Your task to perform on an android device: turn on the 24-hour format for clock Image 0: 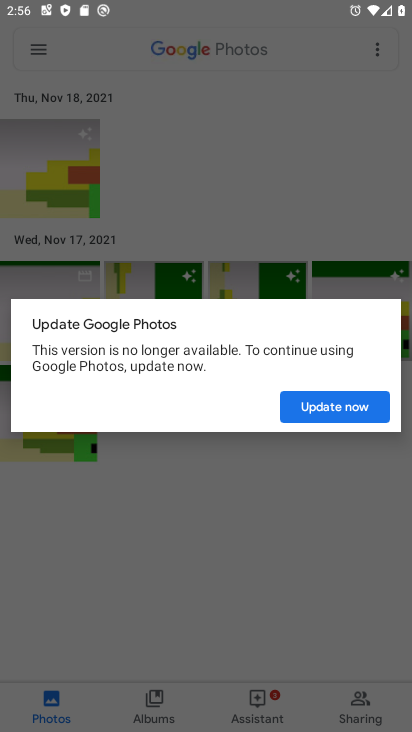
Step 0: press back button
Your task to perform on an android device: turn on the 24-hour format for clock Image 1: 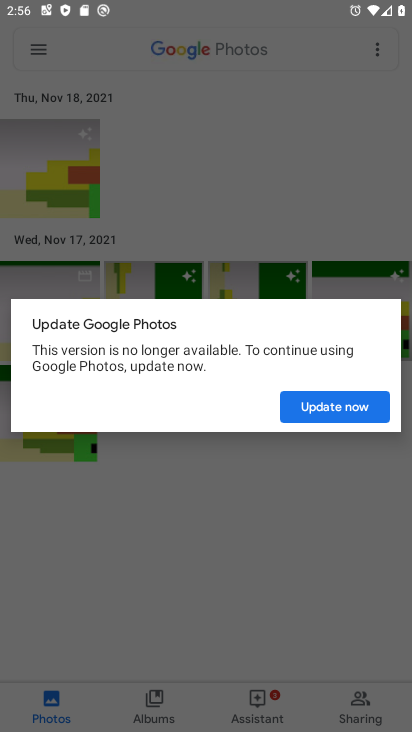
Step 1: press home button
Your task to perform on an android device: turn on the 24-hour format for clock Image 2: 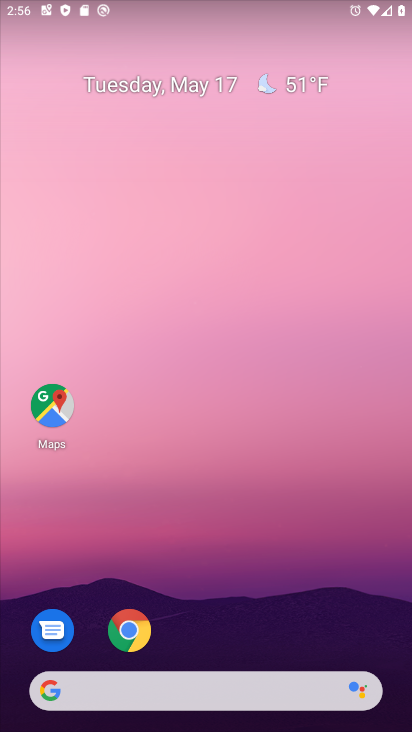
Step 2: drag from (244, 556) to (358, 71)
Your task to perform on an android device: turn on the 24-hour format for clock Image 3: 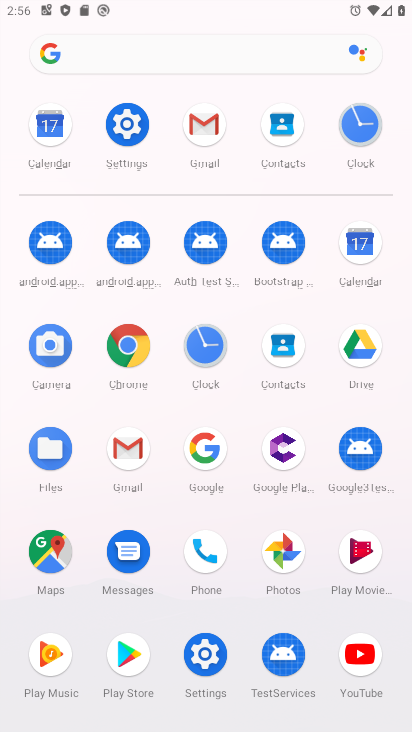
Step 3: click (361, 121)
Your task to perform on an android device: turn on the 24-hour format for clock Image 4: 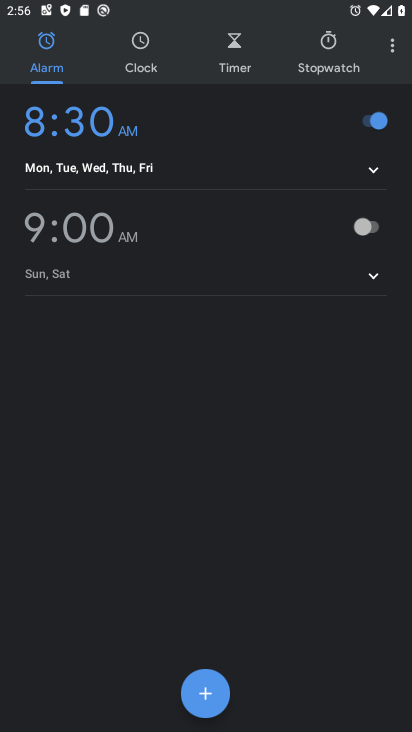
Step 4: click (138, 56)
Your task to perform on an android device: turn on the 24-hour format for clock Image 5: 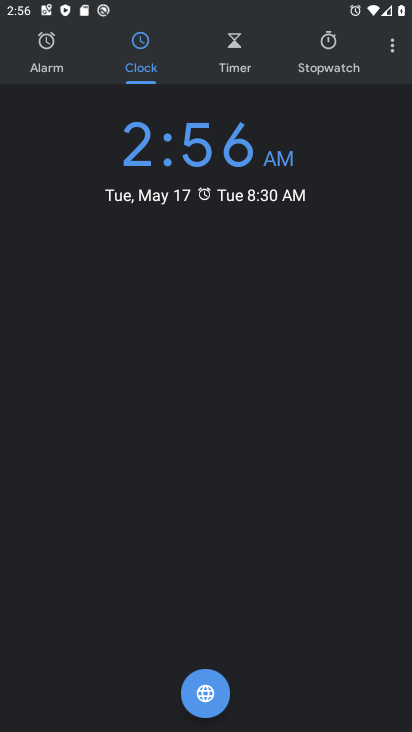
Step 5: click (387, 45)
Your task to perform on an android device: turn on the 24-hour format for clock Image 6: 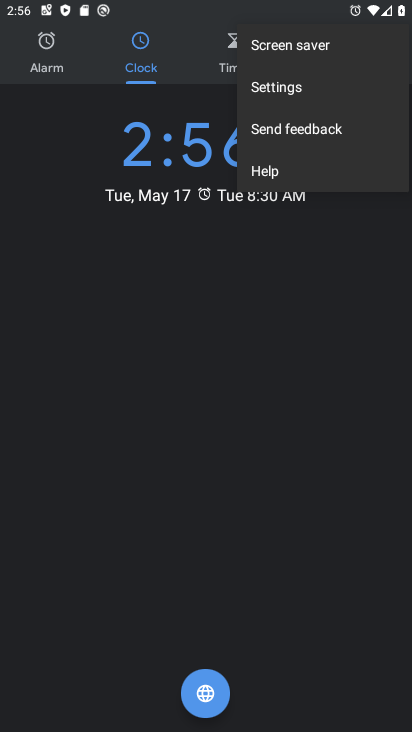
Step 6: click (267, 87)
Your task to perform on an android device: turn on the 24-hour format for clock Image 7: 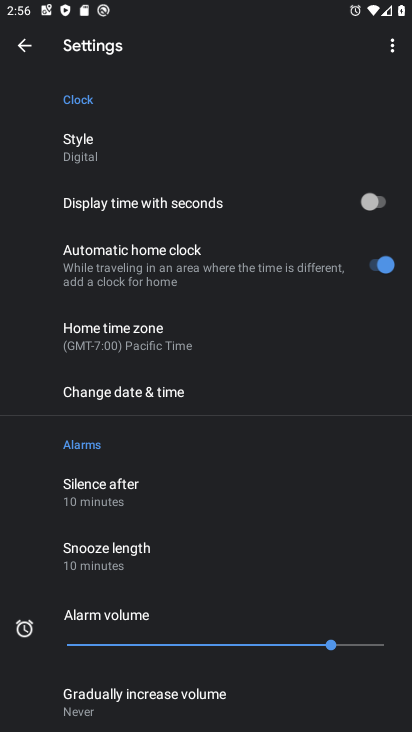
Step 7: click (132, 388)
Your task to perform on an android device: turn on the 24-hour format for clock Image 8: 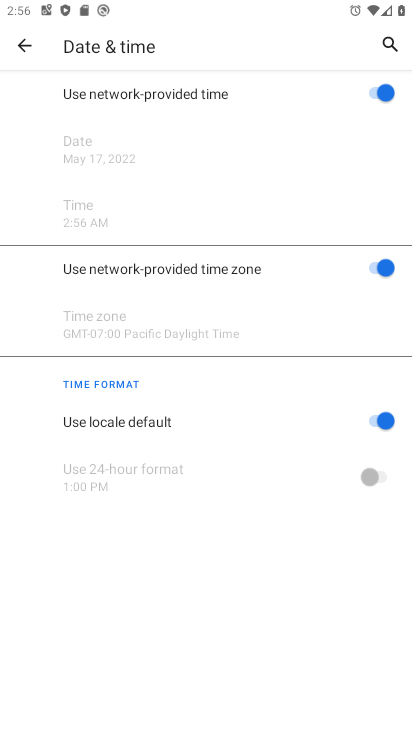
Step 8: click (376, 421)
Your task to perform on an android device: turn on the 24-hour format for clock Image 9: 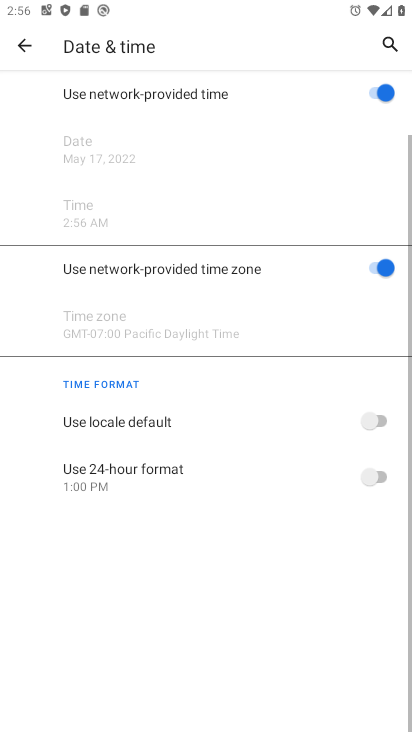
Step 9: click (381, 472)
Your task to perform on an android device: turn on the 24-hour format for clock Image 10: 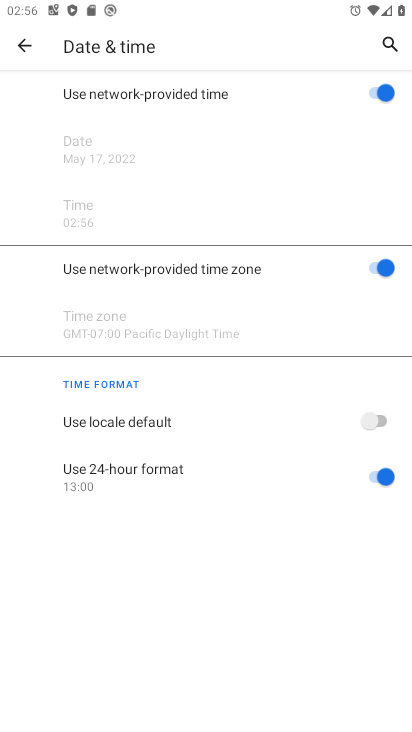
Step 10: task complete